Your task to perform on an android device: see sites visited before in the chrome app Image 0: 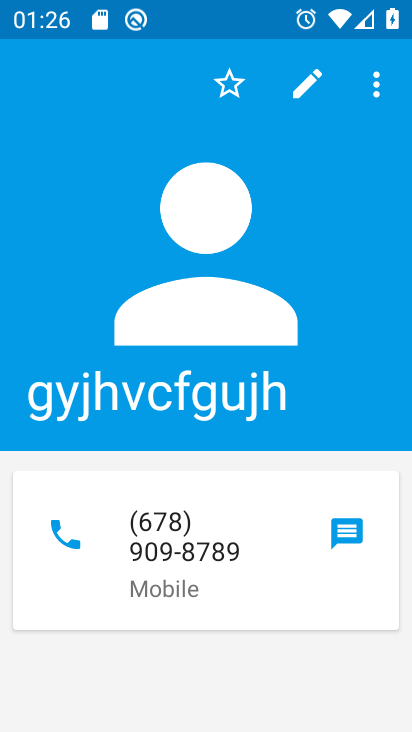
Step 0: press home button
Your task to perform on an android device: see sites visited before in the chrome app Image 1: 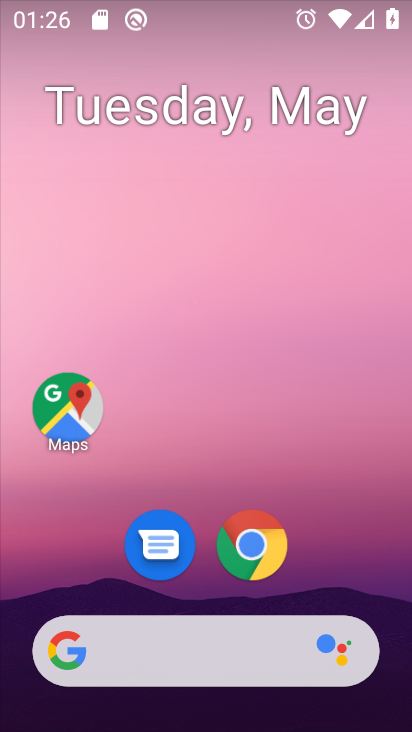
Step 1: click (250, 553)
Your task to perform on an android device: see sites visited before in the chrome app Image 2: 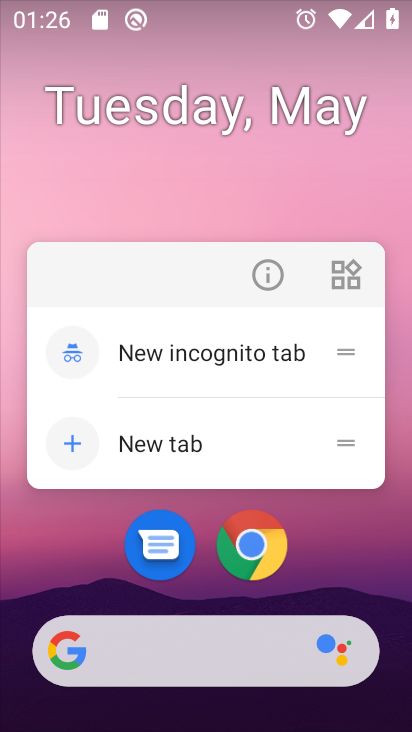
Step 2: click (246, 552)
Your task to perform on an android device: see sites visited before in the chrome app Image 3: 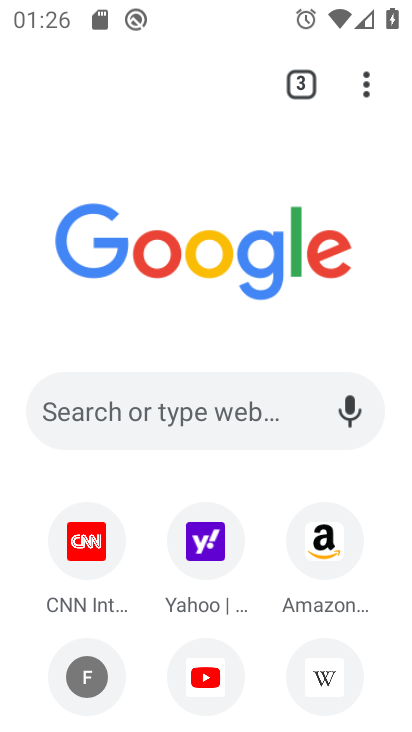
Step 3: click (339, 100)
Your task to perform on an android device: see sites visited before in the chrome app Image 4: 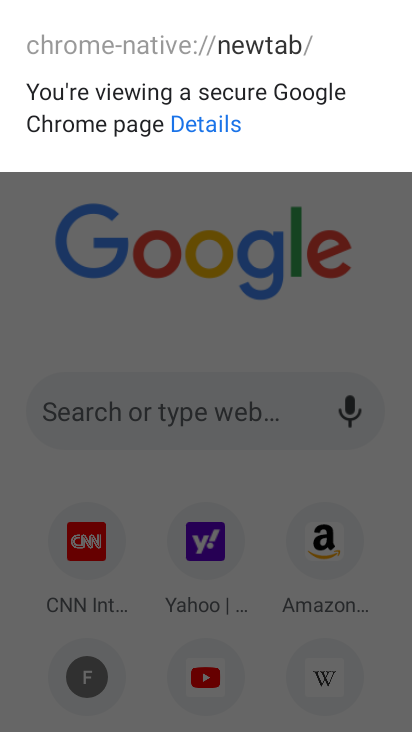
Step 4: click (351, 238)
Your task to perform on an android device: see sites visited before in the chrome app Image 5: 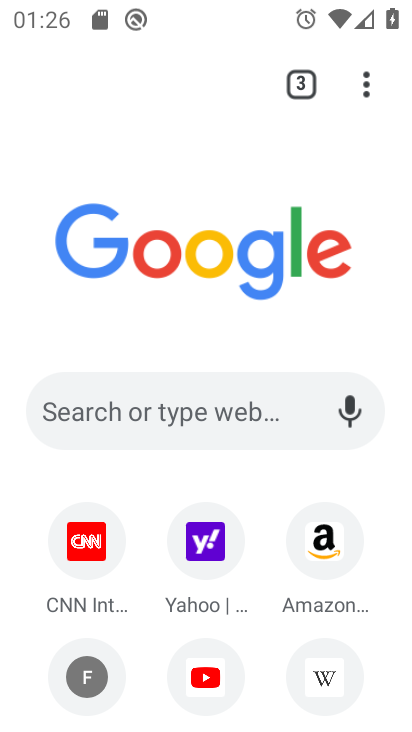
Step 5: click (374, 112)
Your task to perform on an android device: see sites visited before in the chrome app Image 6: 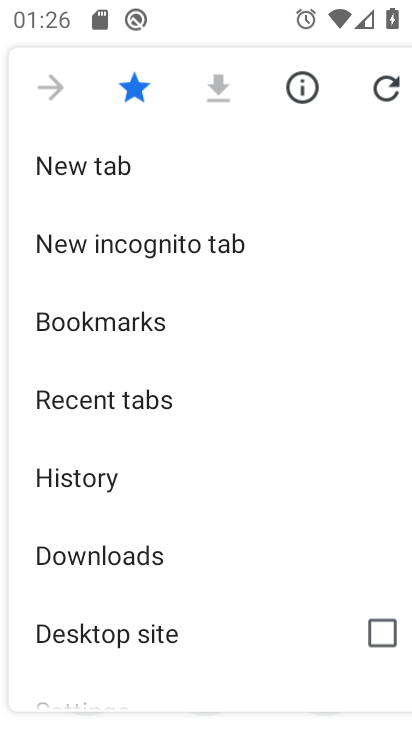
Step 6: click (98, 477)
Your task to perform on an android device: see sites visited before in the chrome app Image 7: 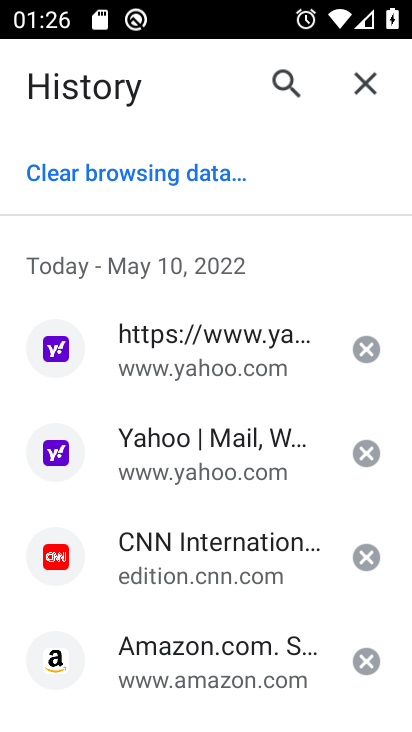
Step 7: task complete